Your task to perform on an android device: turn on showing notifications on the lock screen Image 0: 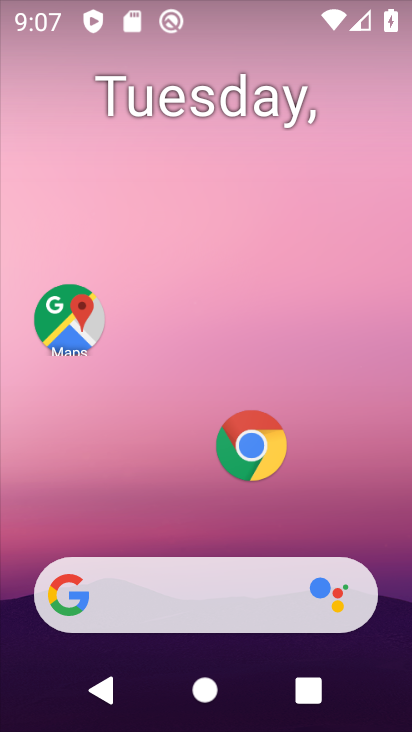
Step 0: drag from (296, 508) to (230, 163)
Your task to perform on an android device: turn on showing notifications on the lock screen Image 1: 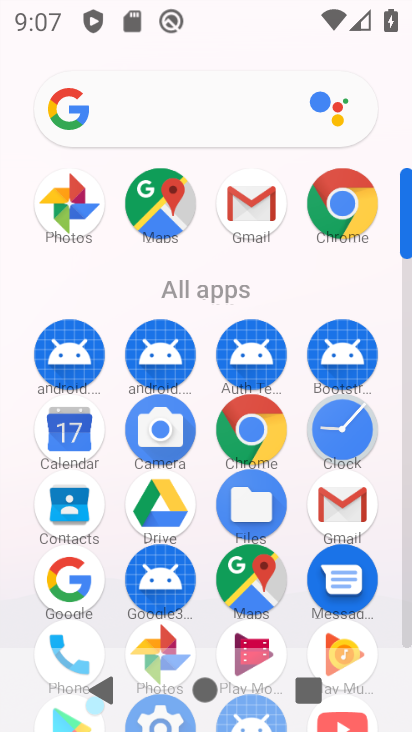
Step 1: drag from (296, 632) to (320, 308)
Your task to perform on an android device: turn on showing notifications on the lock screen Image 2: 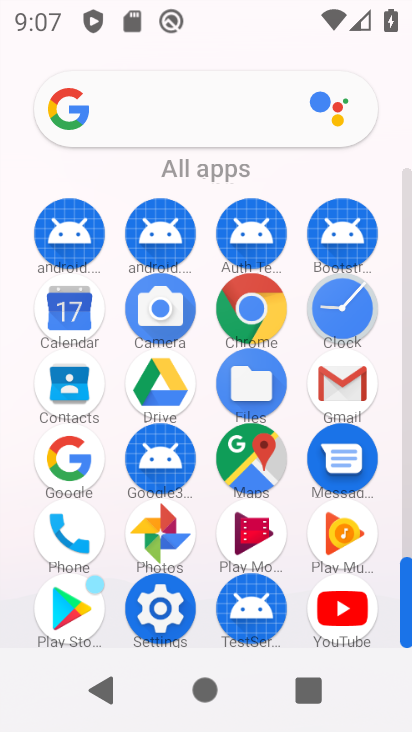
Step 2: click (181, 598)
Your task to perform on an android device: turn on showing notifications on the lock screen Image 3: 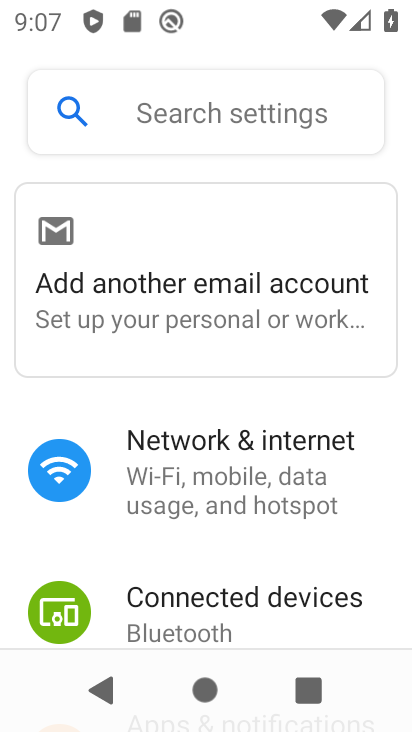
Step 3: drag from (189, 611) to (217, 422)
Your task to perform on an android device: turn on showing notifications on the lock screen Image 4: 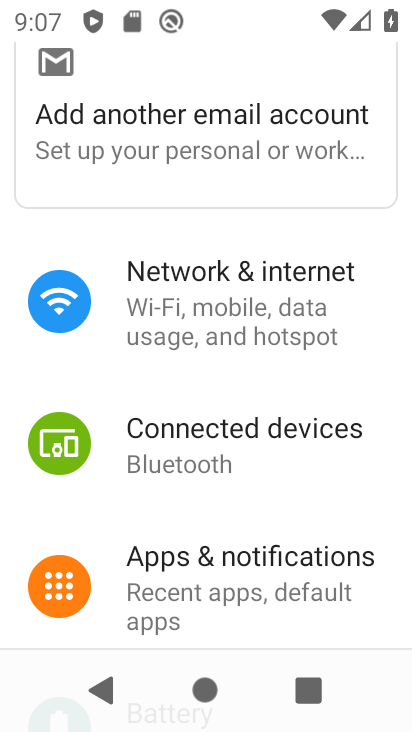
Step 4: click (232, 573)
Your task to perform on an android device: turn on showing notifications on the lock screen Image 5: 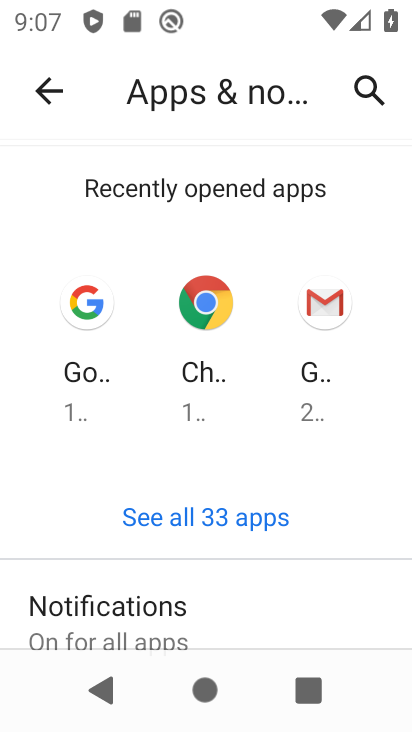
Step 5: click (158, 616)
Your task to perform on an android device: turn on showing notifications on the lock screen Image 6: 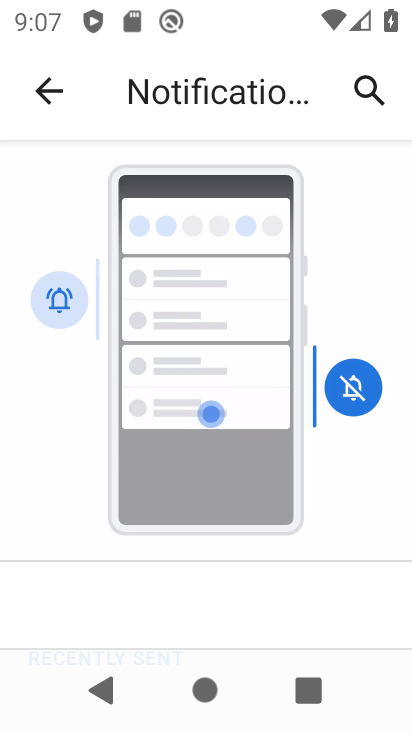
Step 6: drag from (156, 607) to (155, 381)
Your task to perform on an android device: turn on showing notifications on the lock screen Image 7: 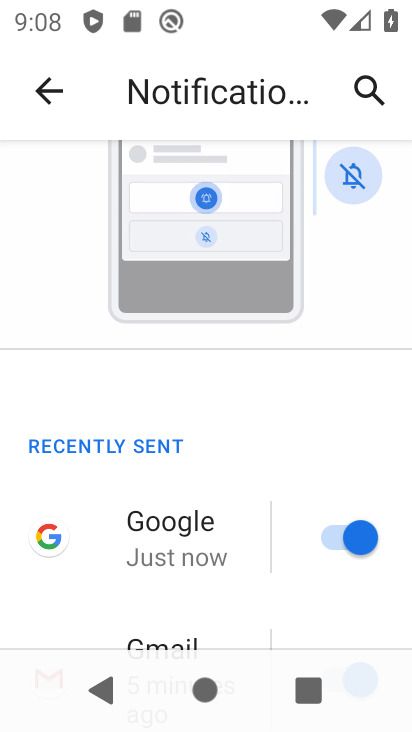
Step 7: drag from (204, 578) to (217, 396)
Your task to perform on an android device: turn on showing notifications on the lock screen Image 8: 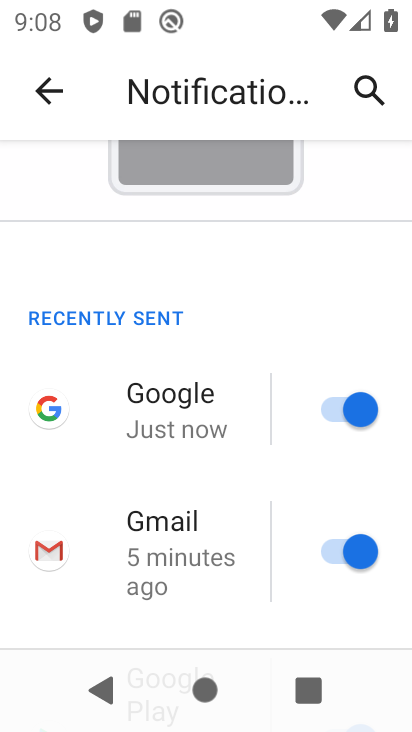
Step 8: drag from (230, 596) to (215, 420)
Your task to perform on an android device: turn on showing notifications on the lock screen Image 9: 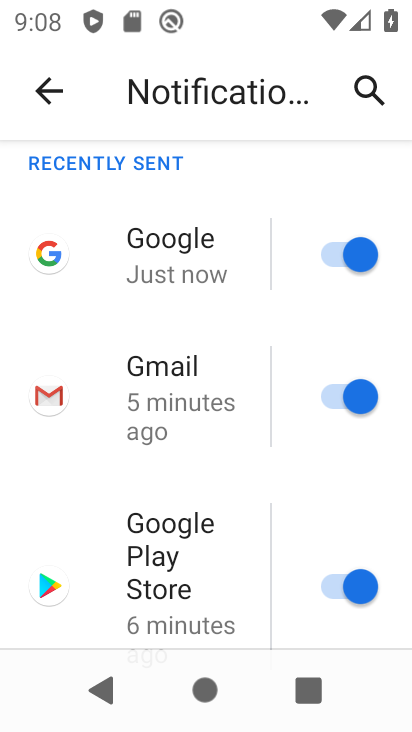
Step 9: drag from (186, 613) to (179, 436)
Your task to perform on an android device: turn on showing notifications on the lock screen Image 10: 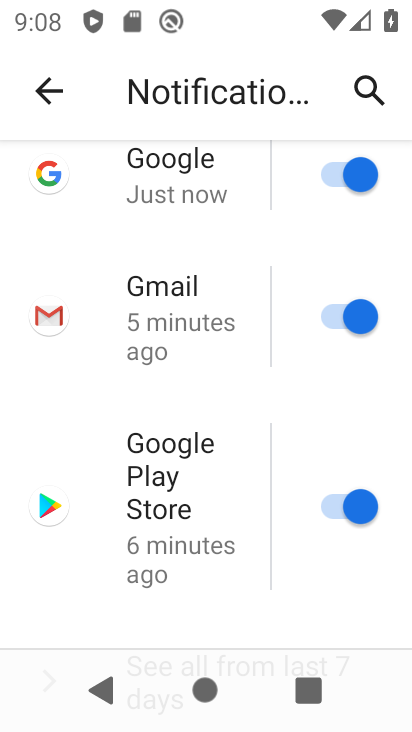
Step 10: drag from (196, 629) to (171, 474)
Your task to perform on an android device: turn on showing notifications on the lock screen Image 11: 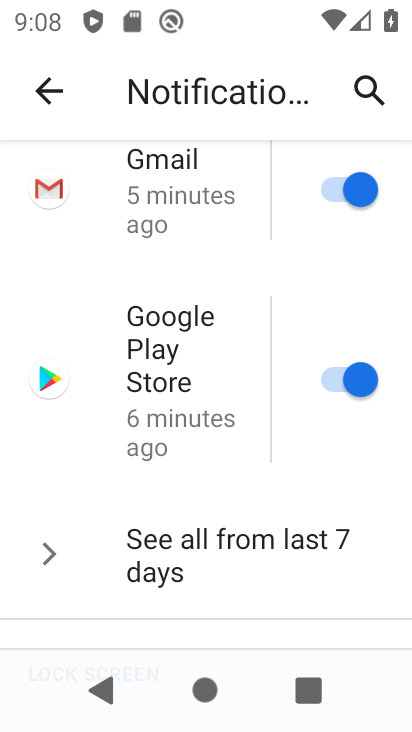
Step 11: drag from (197, 560) to (197, 429)
Your task to perform on an android device: turn on showing notifications on the lock screen Image 12: 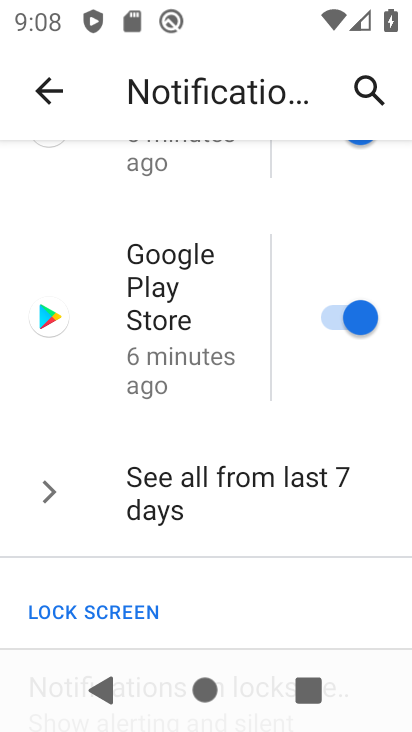
Step 12: drag from (209, 569) to (200, 247)
Your task to perform on an android device: turn on showing notifications on the lock screen Image 13: 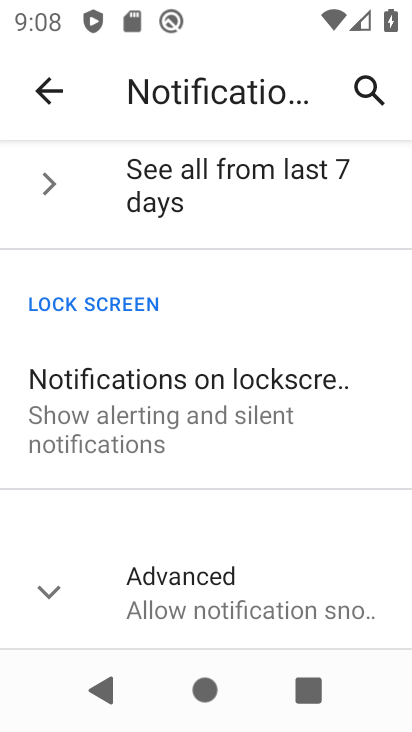
Step 13: click (149, 449)
Your task to perform on an android device: turn on showing notifications on the lock screen Image 14: 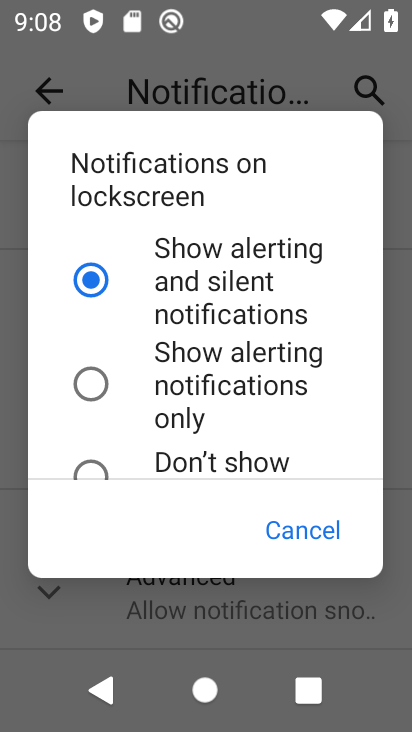
Step 14: task complete